Your task to perform on an android device: Go to Maps Image 0: 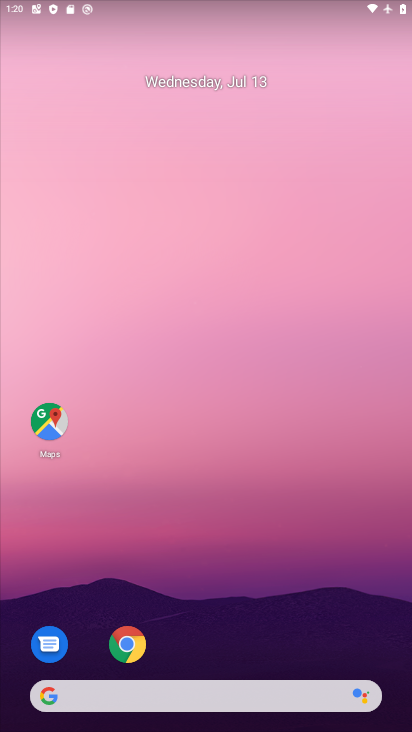
Step 0: drag from (316, 561) to (251, 88)
Your task to perform on an android device: Go to Maps Image 1: 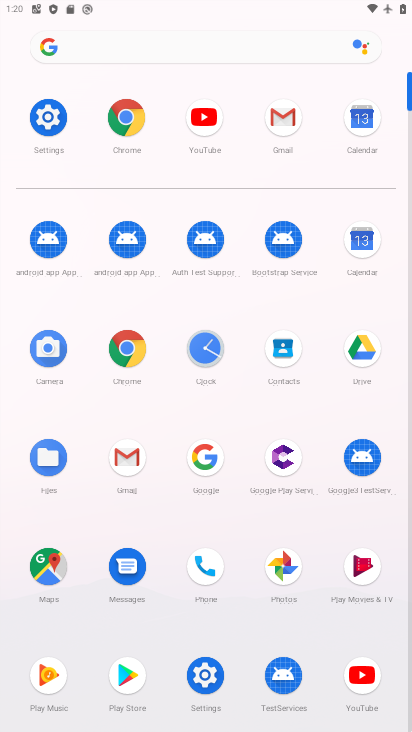
Step 1: click (43, 572)
Your task to perform on an android device: Go to Maps Image 2: 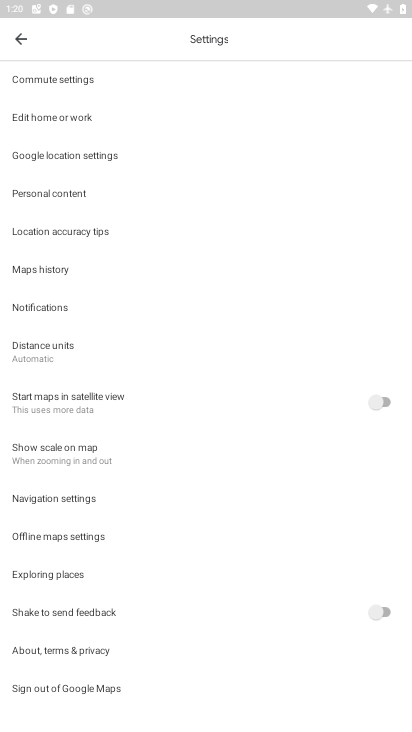
Step 2: task complete